Your task to perform on an android device: find photos in the google photos app Image 0: 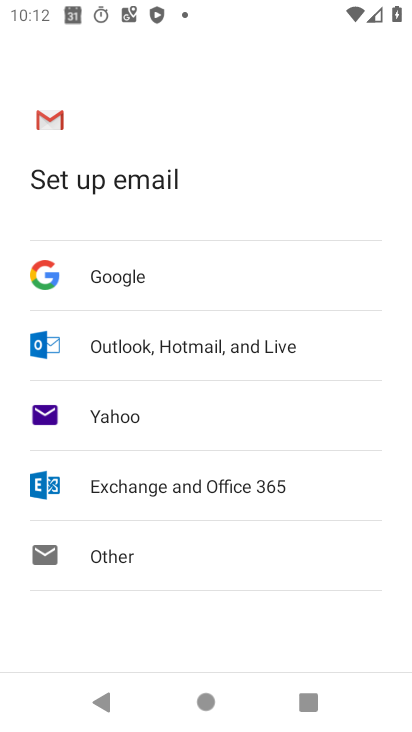
Step 0: press home button
Your task to perform on an android device: find photos in the google photos app Image 1: 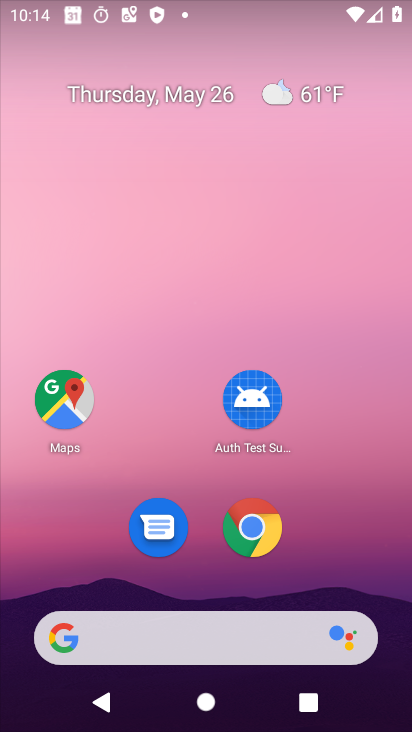
Step 1: drag from (341, 445) to (256, 20)
Your task to perform on an android device: find photos in the google photos app Image 2: 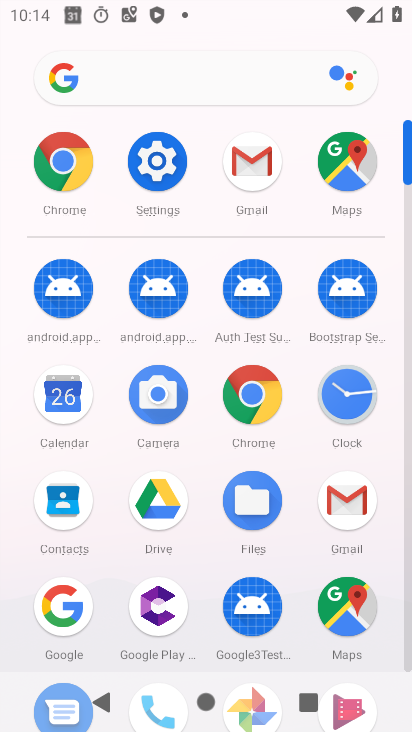
Step 2: drag from (379, 621) to (404, 302)
Your task to perform on an android device: find photos in the google photos app Image 3: 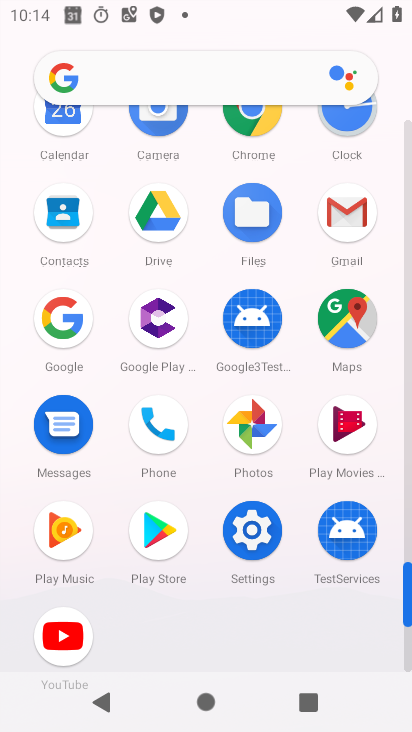
Step 3: click (227, 417)
Your task to perform on an android device: find photos in the google photos app Image 4: 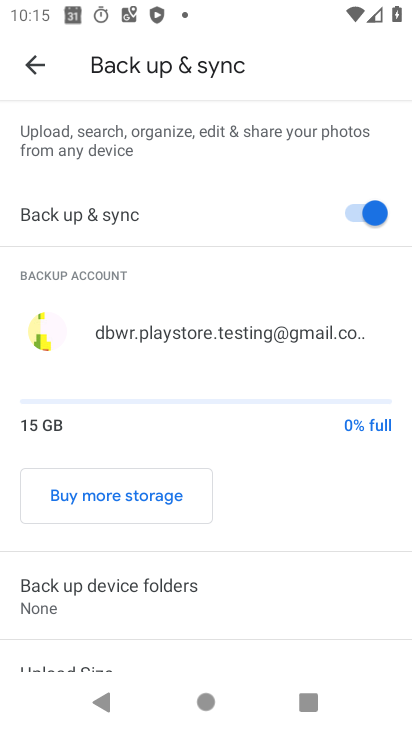
Step 4: click (48, 64)
Your task to perform on an android device: find photos in the google photos app Image 5: 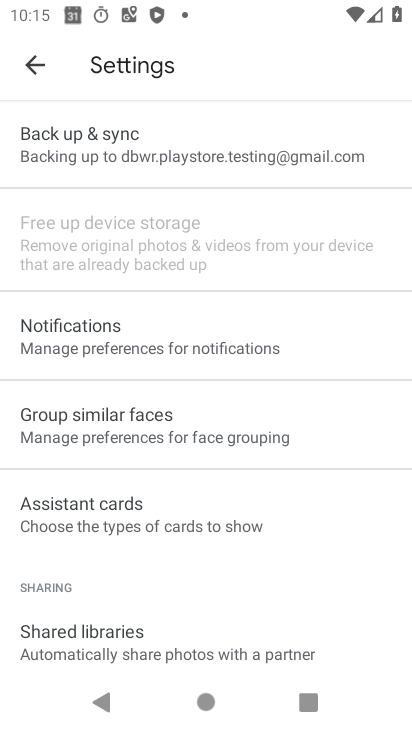
Step 5: click (48, 62)
Your task to perform on an android device: find photos in the google photos app Image 6: 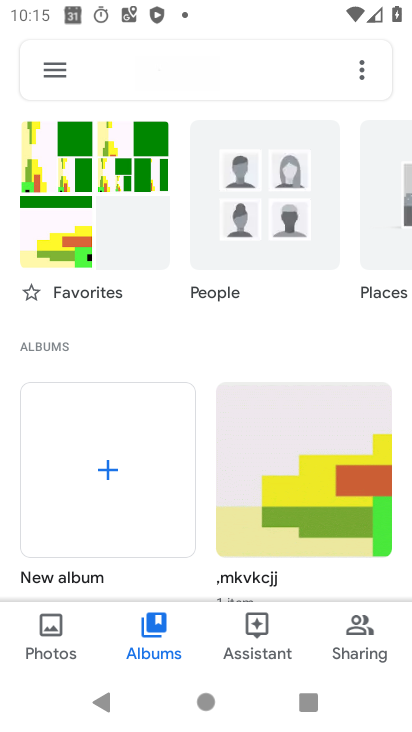
Step 6: click (32, 648)
Your task to perform on an android device: find photos in the google photos app Image 7: 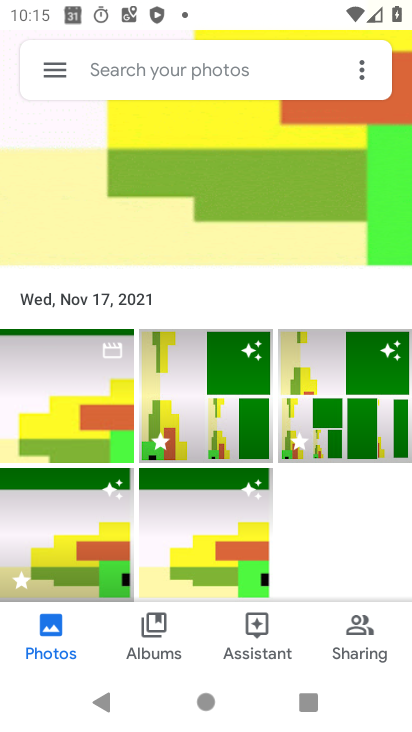
Step 7: task complete